Your task to perform on an android device: Open the calendar app, open the side menu, and click the "Day" option Image 0: 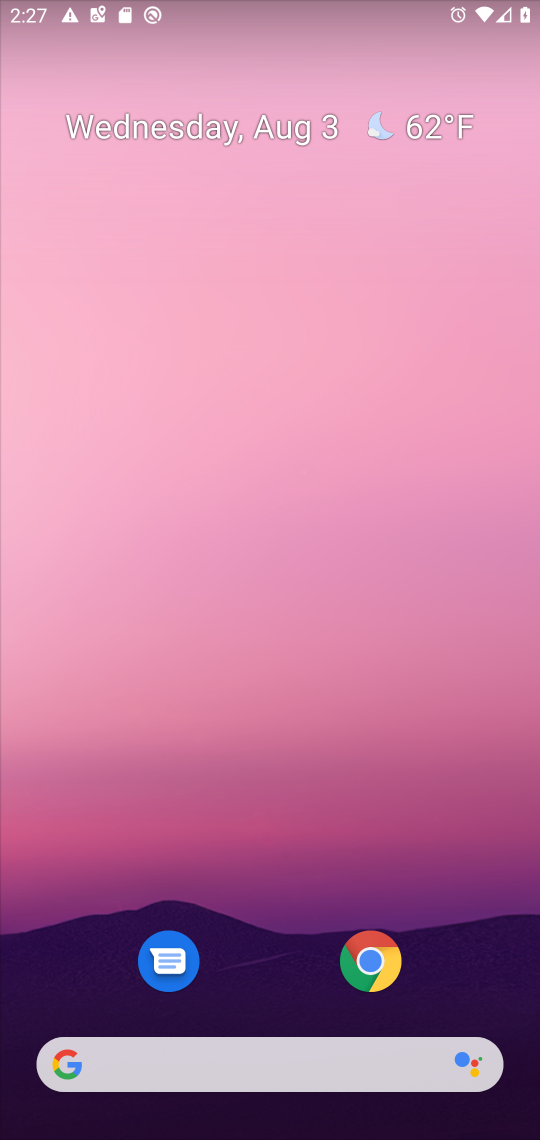
Step 0: press home button
Your task to perform on an android device: Open the calendar app, open the side menu, and click the "Day" option Image 1: 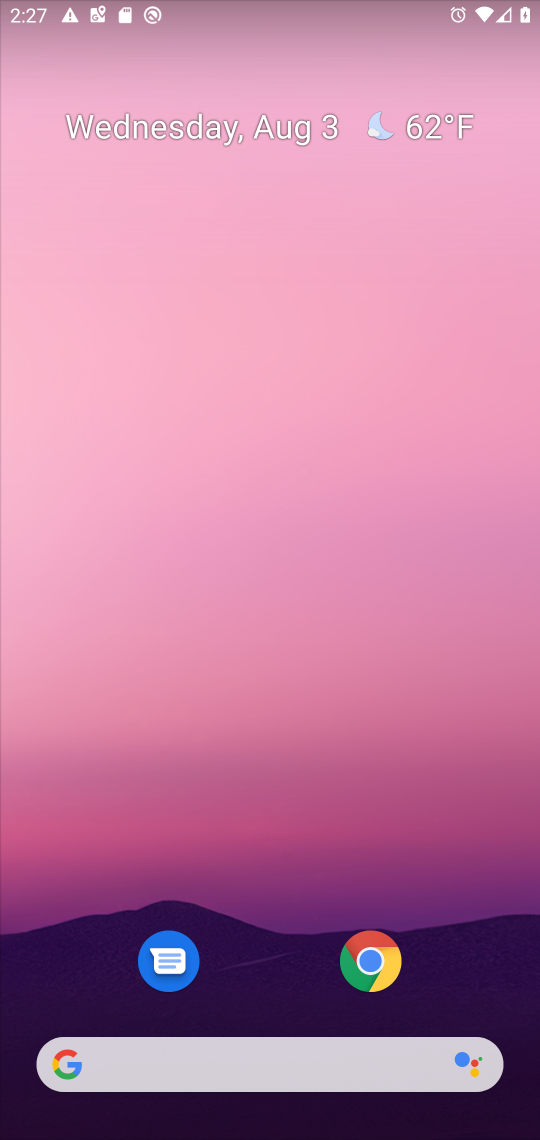
Step 1: drag from (304, 1013) to (322, 0)
Your task to perform on an android device: Open the calendar app, open the side menu, and click the "Day" option Image 2: 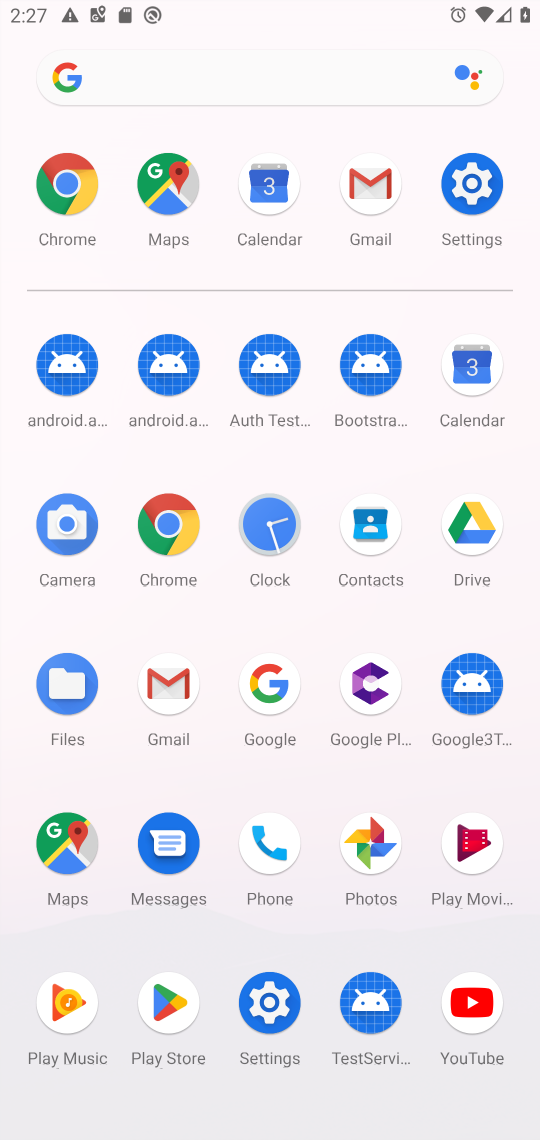
Step 2: click (471, 371)
Your task to perform on an android device: Open the calendar app, open the side menu, and click the "Day" option Image 3: 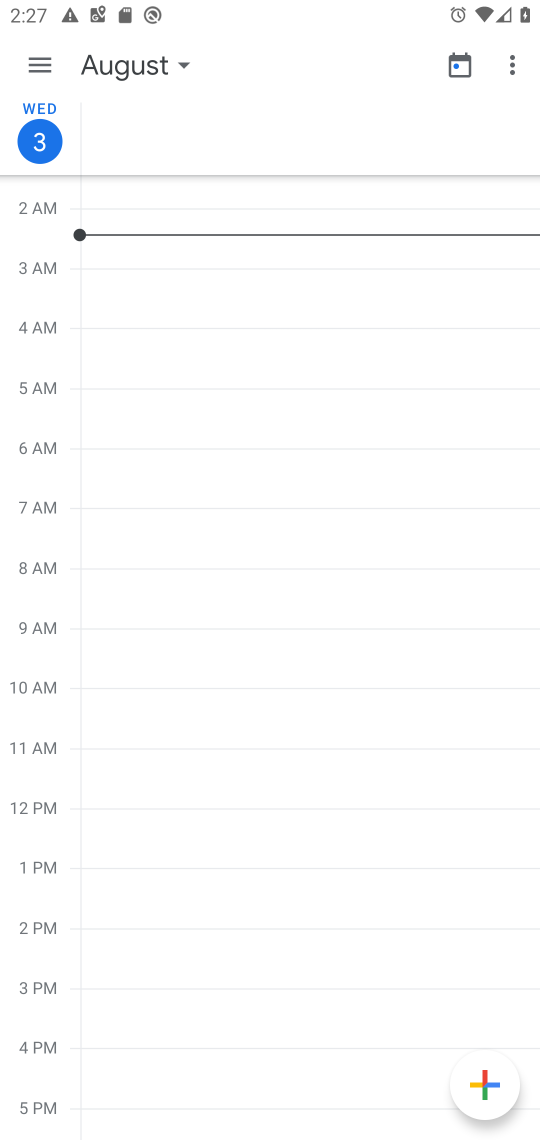
Step 3: click (38, 67)
Your task to perform on an android device: Open the calendar app, open the side menu, and click the "Day" option Image 4: 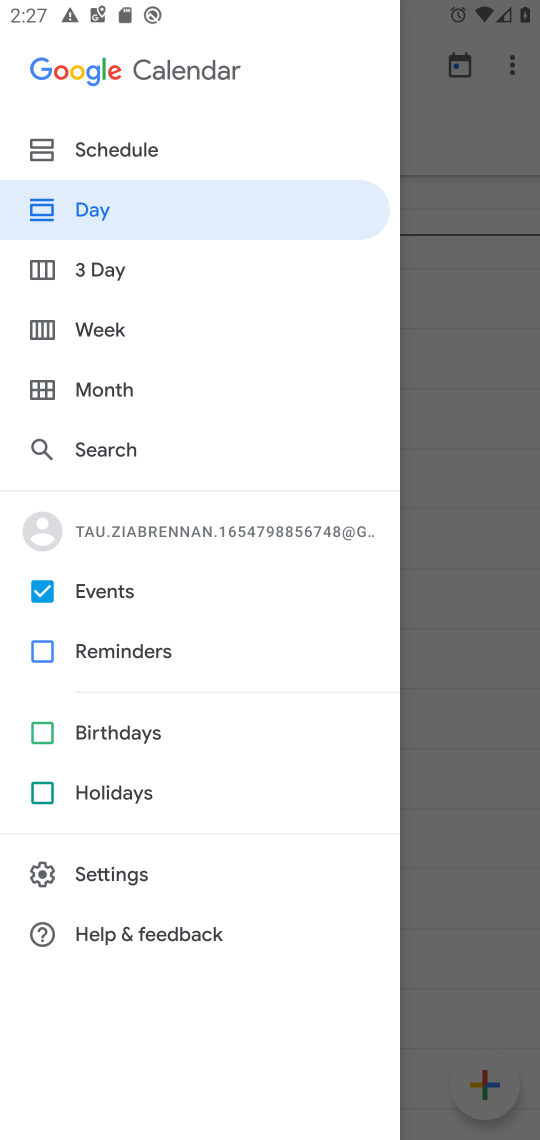
Step 4: click (76, 200)
Your task to perform on an android device: Open the calendar app, open the side menu, and click the "Day" option Image 5: 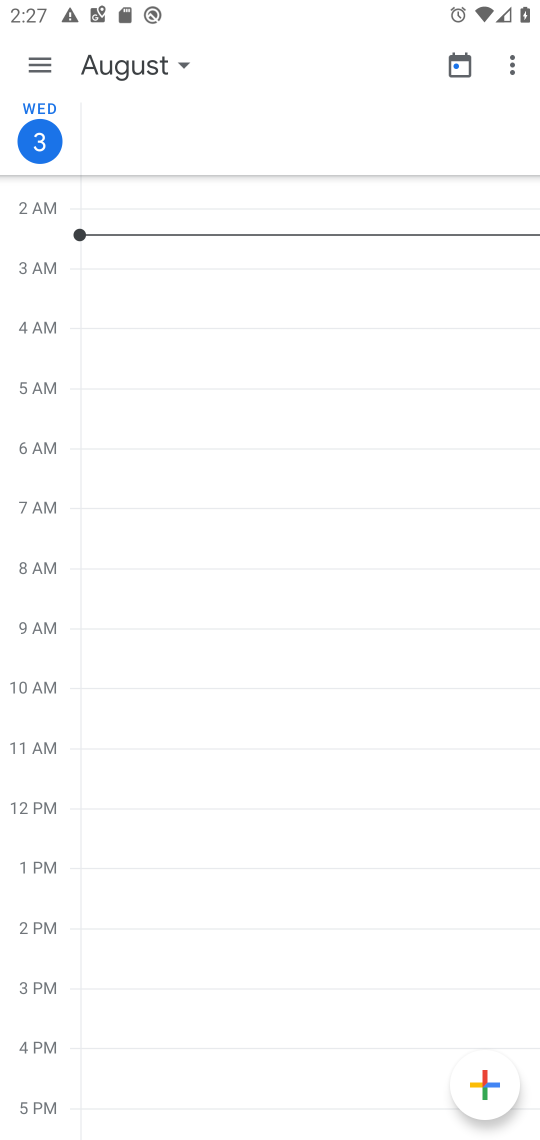
Step 5: task complete